Your task to perform on an android device: What's the news about the US economy? Image 0: 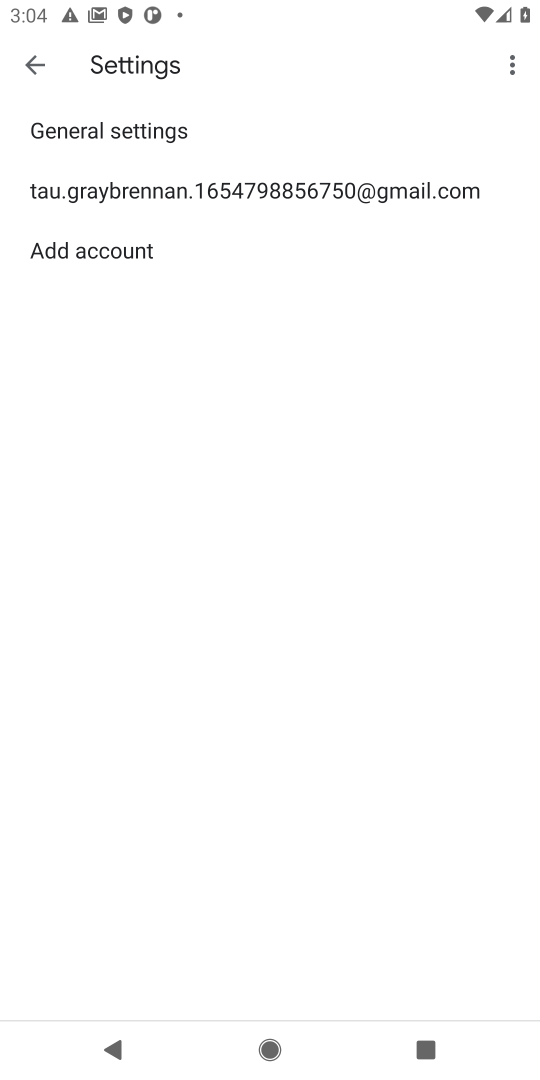
Step 0: press home button
Your task to perform on an android device: What's the news about the US economy? Image 1: 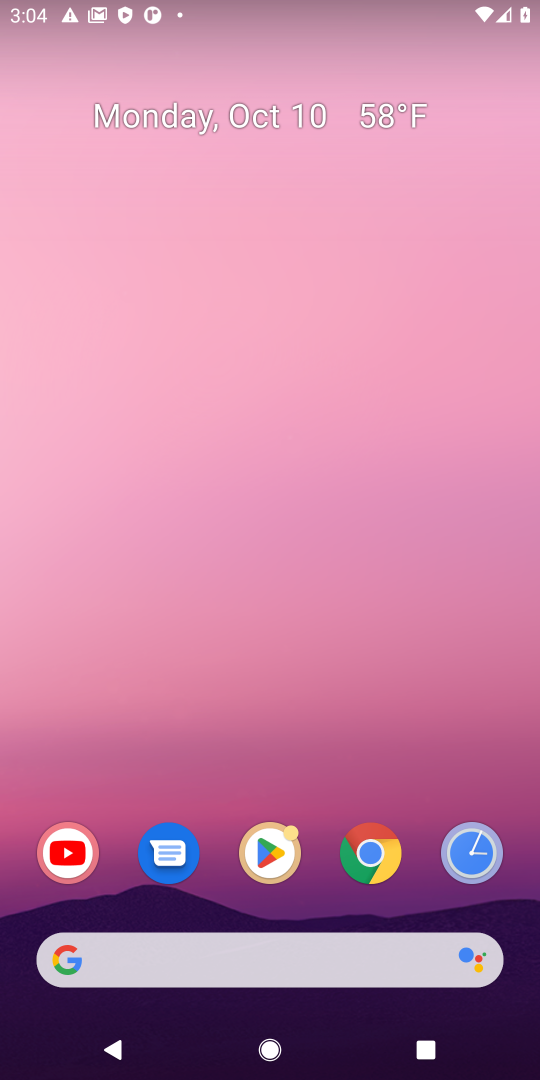
Step 1: click (310, 944)
Your task to perform on an android device: What's the news about the US economy? Image 2: 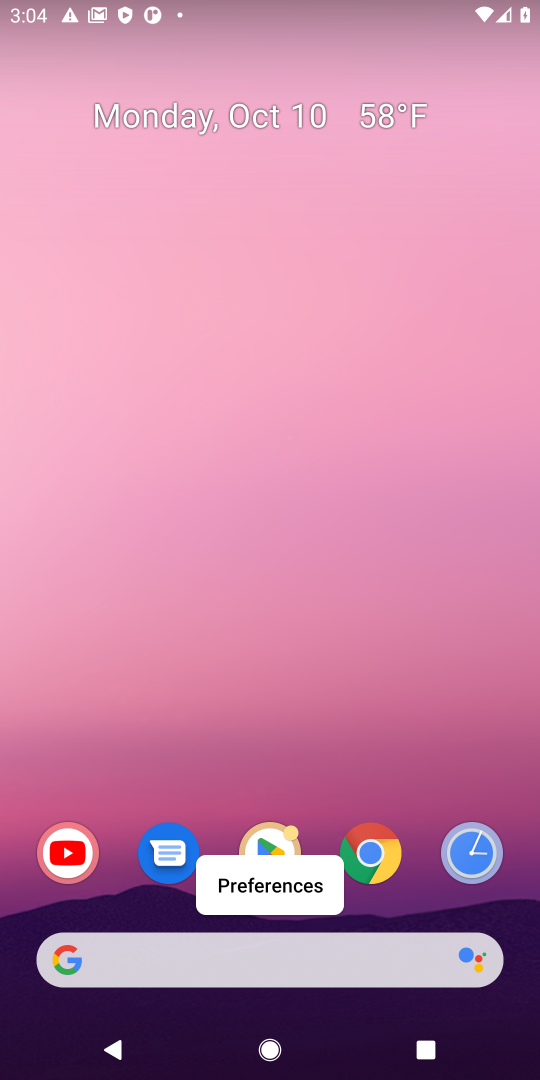
Step 2: click (275, 974)
Your task to perform on an android device: What's the news about the US economy? Image 3: 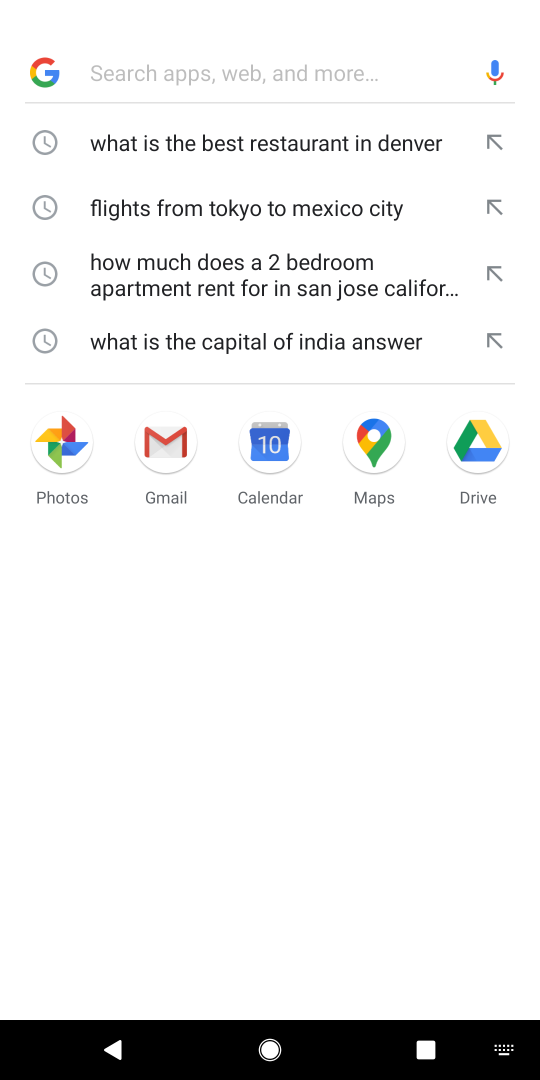
Step 3: click (150, 45)
Your task to perform on an android device: What's the news about the US economy? Image 4: 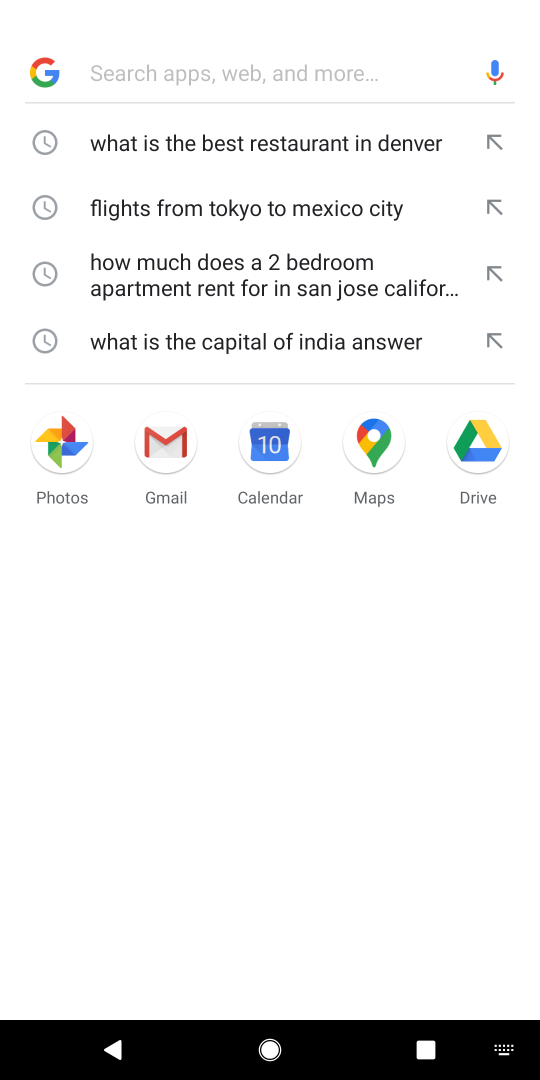
Step 4: type "What's the news about the US economy"
Your task to perform on an android device: What's the news about the US economy? Image 5: 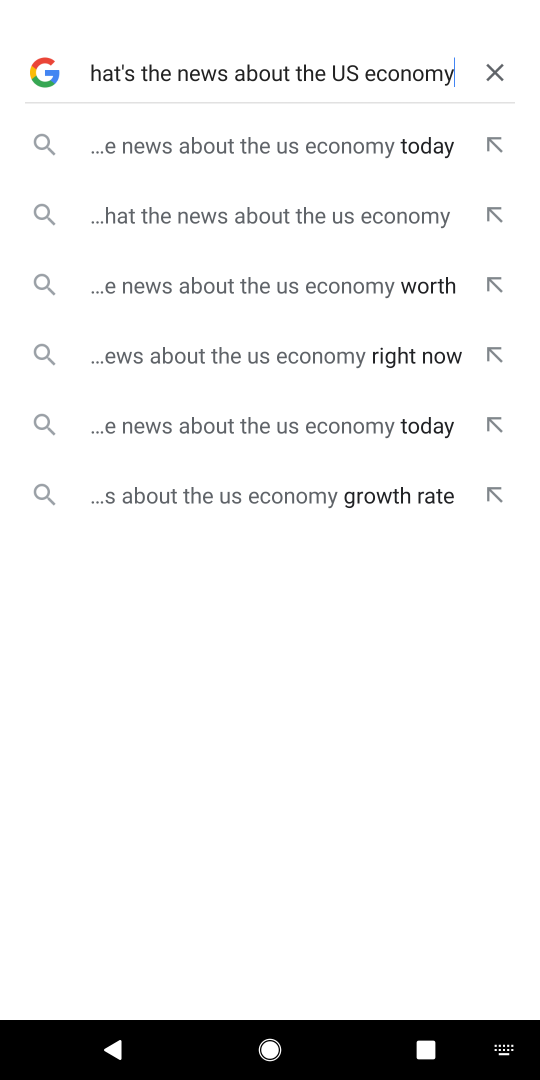
Step 5: click (277, 177)
Your task to perform on an android device: What's the news about the US economy? Image 6: 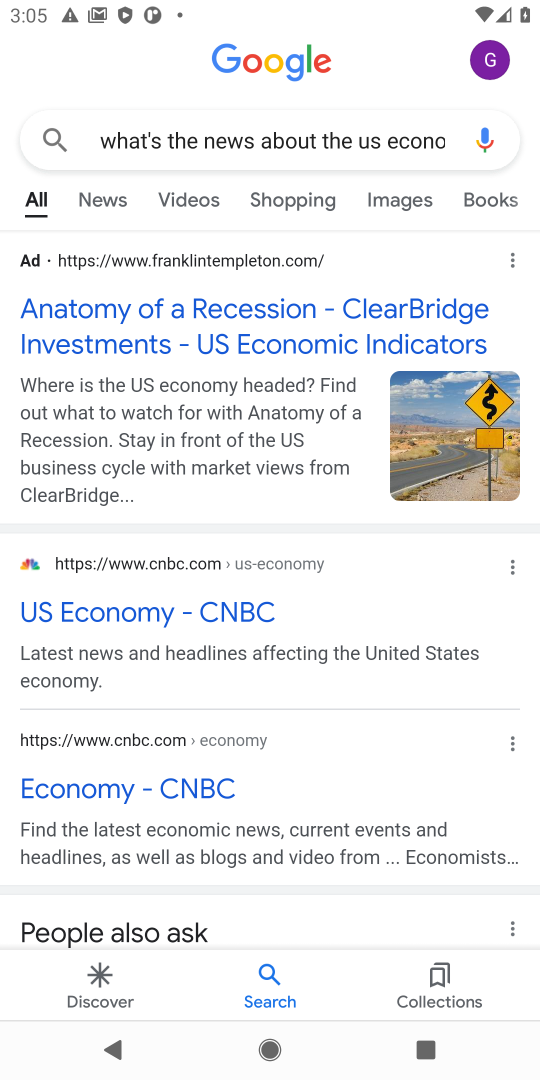
Step 6: task complete